Your task to perform on an android device: check battery use Image 0: 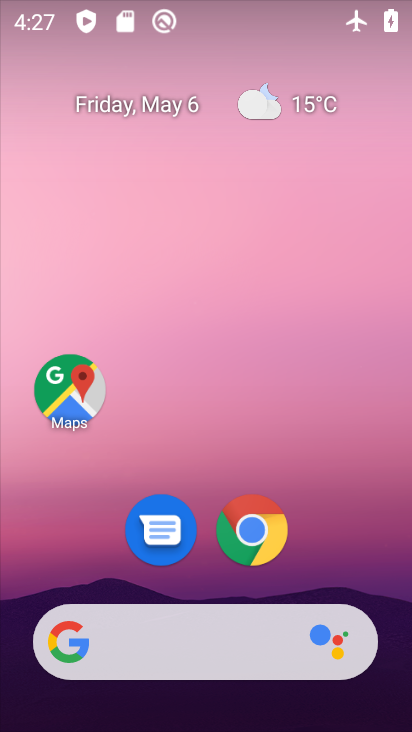
Step 0: drag from (361, 528) to (326, 138)
Your task to perform on an android device: check battery use Image 1: 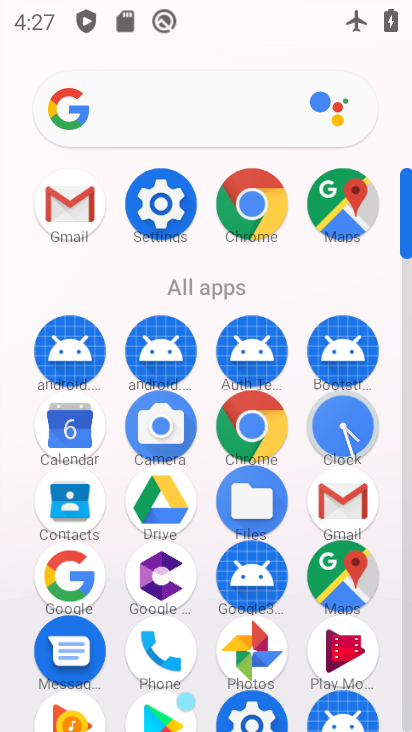
Step 1: click (167, 207)
Your task to perform on an android device: check battery use Image 2: 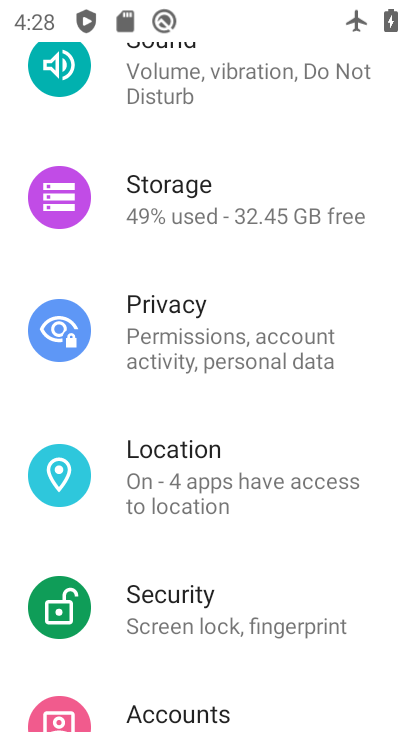
Step 2: drag from (250, 613) to (227, 247)
Your task to perform on an android device: check battery use Image 3: 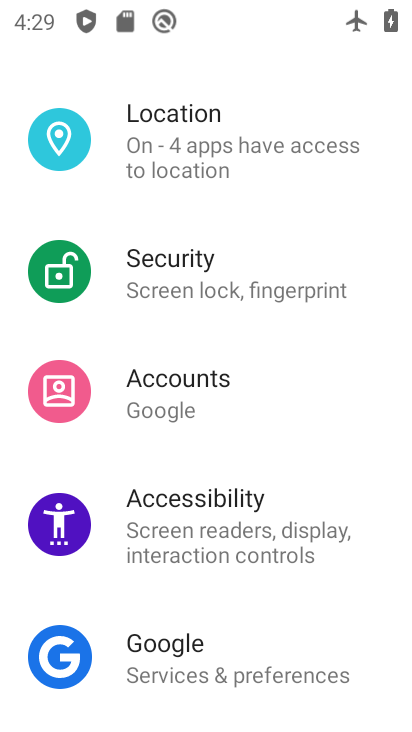
Step 3: drag from (242, 393) to (262, 628)
Your task to perform on an android device: check battery use Image 4: 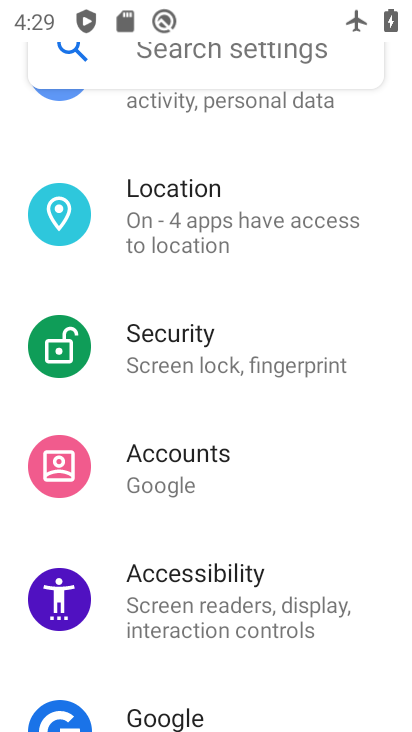
Step 4: drag from (189, 185) to (238, 610)
Your task to perform on an android device: check battery use Image 5: 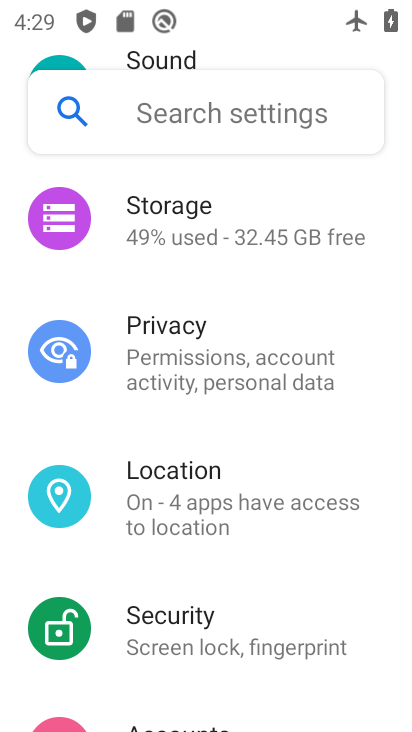
Step 5: drag from (173, 263) to (245, 570)
Your task to perform on an android device: check battery use Image 6: 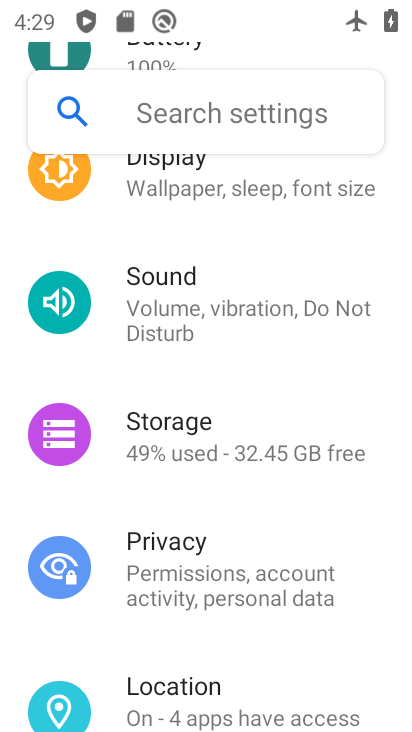
Step 6: drag from (202, 205) to (259, 605)
Your task to perform on an android device: check battery use Image 7: 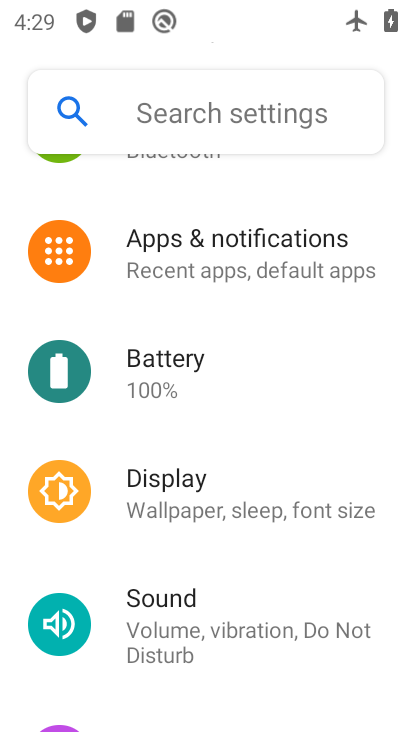
Step 7: click (163, 375)
Your task to perform on an android device: check battery use Image 8: 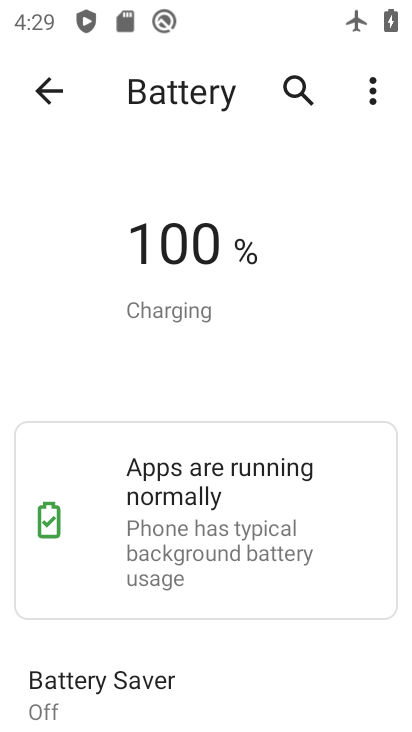
Step 8: task complete